Your task to perform on an android device: turn on notifications settings in the gmail app Image 0: 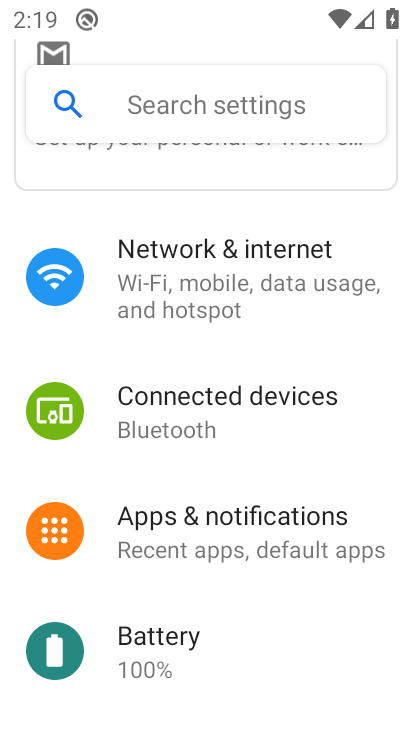
Step 0: press home button
Your task to perform on an android device: turn on notifications settings in the gmail app Image 1: 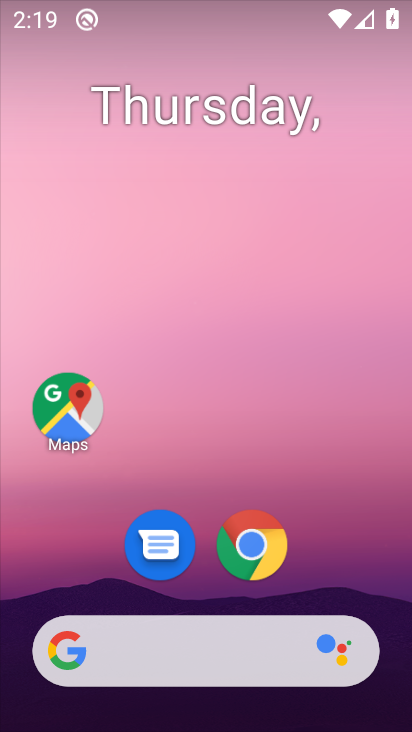
Step 1: drag from (172, 631) to (304, 127)
Your task to perform on an android device: turn on notifications settings in the gmail app Image 2: 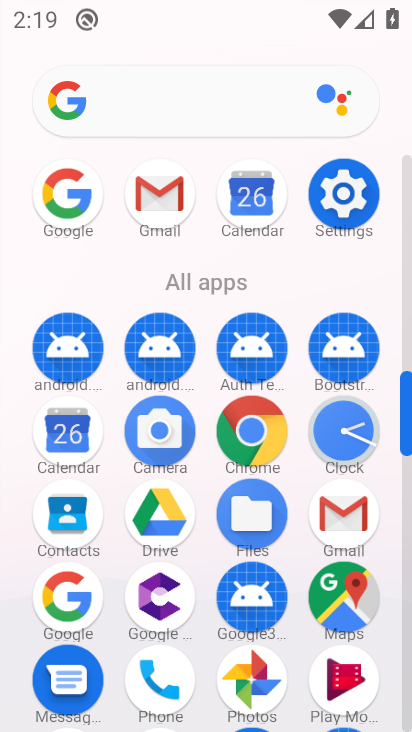
Step 2: click (336, 204)
Your task to perform on an android device: turn on notifications settings in the gmail app Image 3: 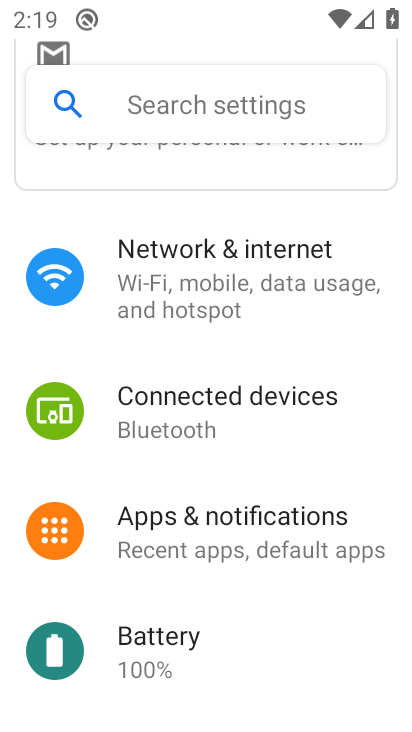
Step 3: press home button
Your task to perform on an android device: turn on notifications settings in the gmail app Image 4: 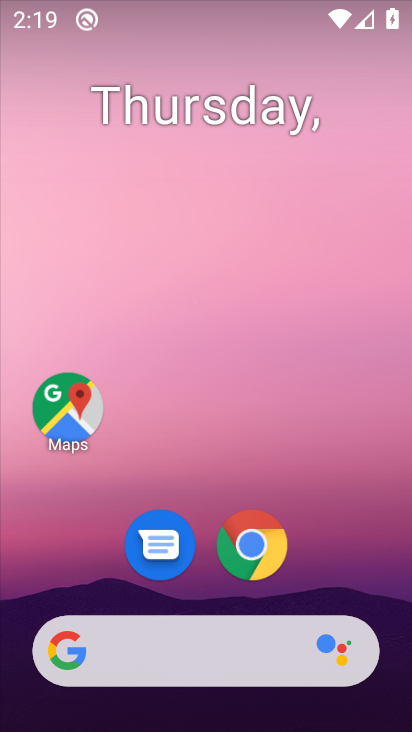
Step 4: drag from (252, 620) to (332, 94)
Your task to perform on an android device: turn on notifications settings in the gmail app Image 5: 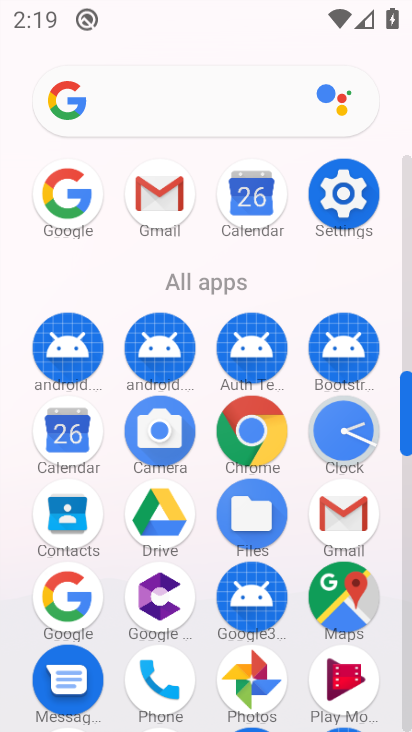
Step 5: click (144, 206)
Your task to perform on an android device: turn on notifications settings in the gmail app Image 6: 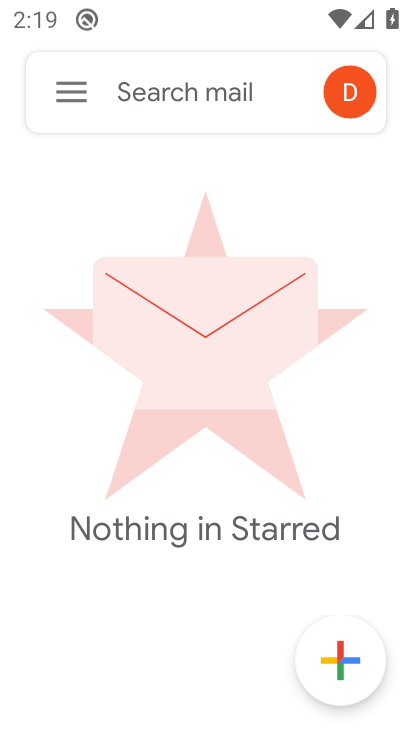
Step 6: click (66, 87)
Your task to perform on an android device: turn on notifications settings in the gmail app Image 7: 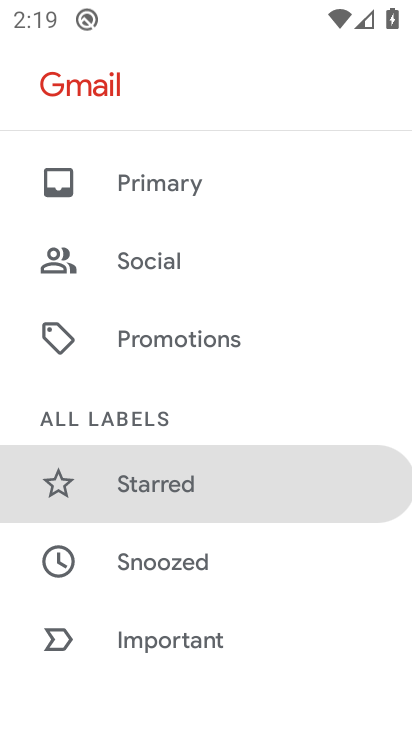
Step 7: drag from (156, 631) to (215, 140)
Your task to perform on an android device: turn on notifications settings in the gmail app Image 8: 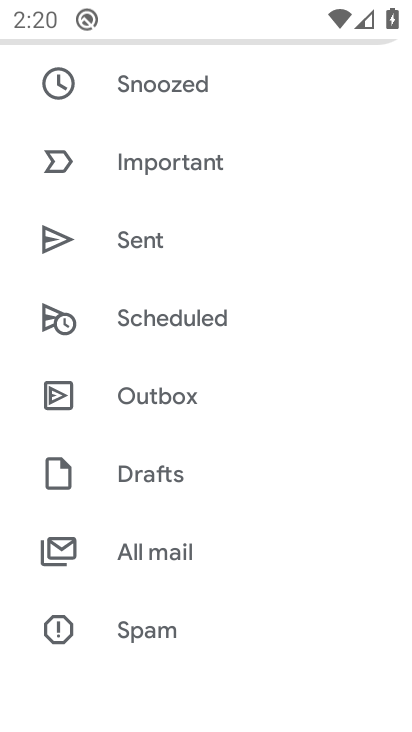
Step 8: drag from (159, 641) to (238, 188)
Your task to perform on an android device: turn on notifications settings in the gmail app Image 9: 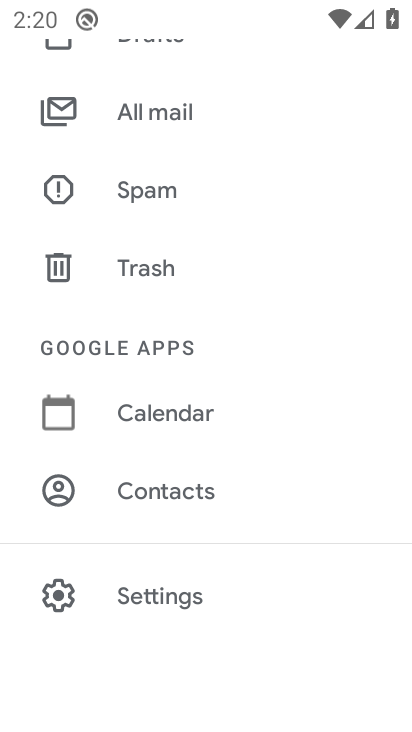
Step 9: click (153, 602)
Your task to perform on an android device: turn on notifications settings in the gmail app Image 10: 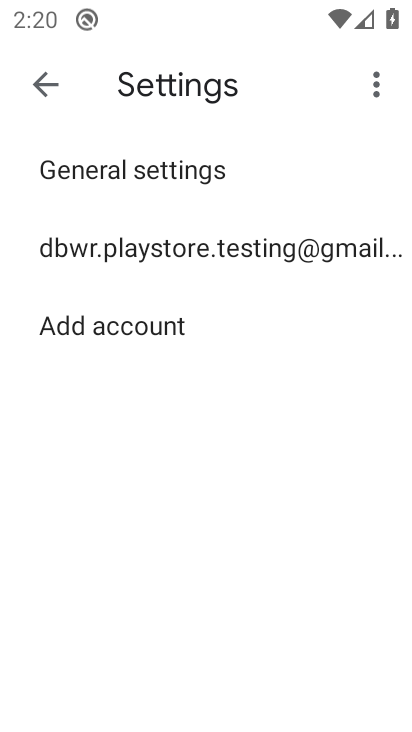
Step 10: click (166, 168)
Your task to perform on an android device: turn on notifications settings in the gmail app Image 11: 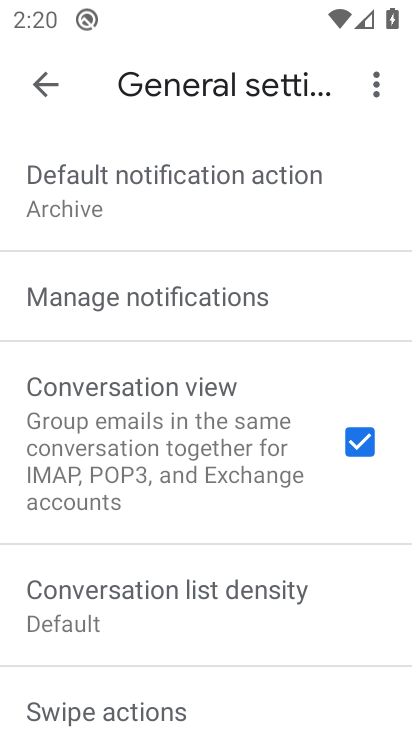
Step 11: click (179, 298)
Your task to perform on an android device: turn on notifications settings in the gmail app Image 12: 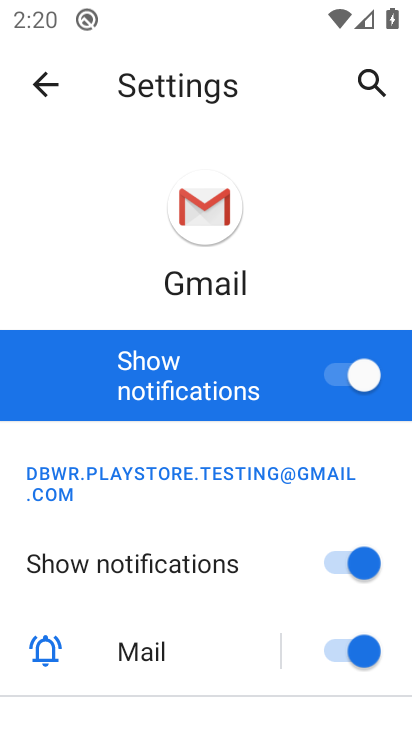
Step 12: task complete